Your task to perform on an android device: Go to internet settings Image 0: 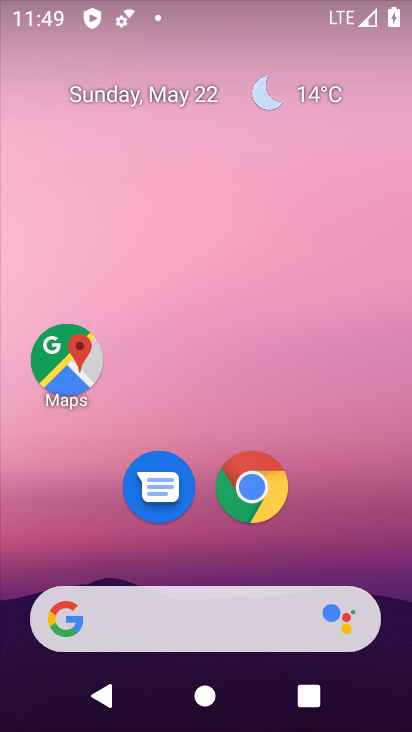
Step 0: drag from (374, 537) to (304, 4)
Your task to perform on an android device: Go to internet settings Image 1: 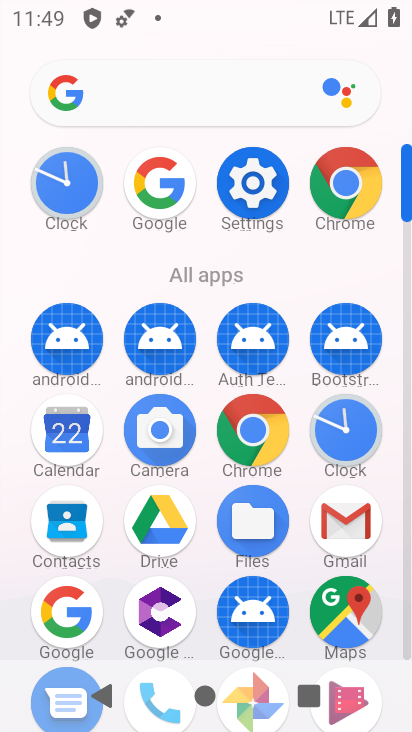
Step 1: click (257, 163)
Your task to perform on an android device: Go to internet settings Image 2: 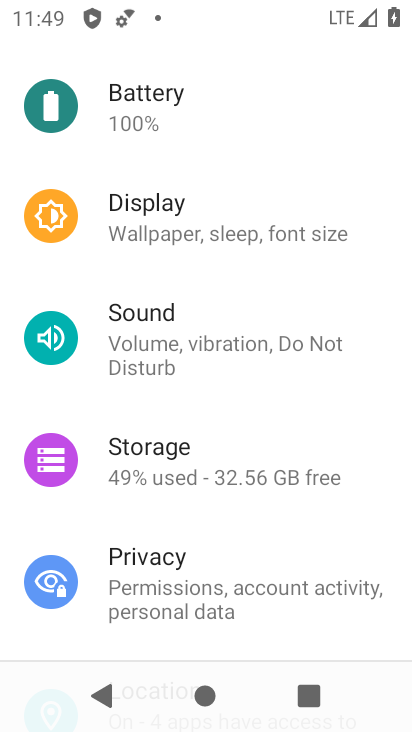
Step 2: drag from (245, 207) to (218, 727)
Your task to perform on an android device: Go to internet settings Image 3: 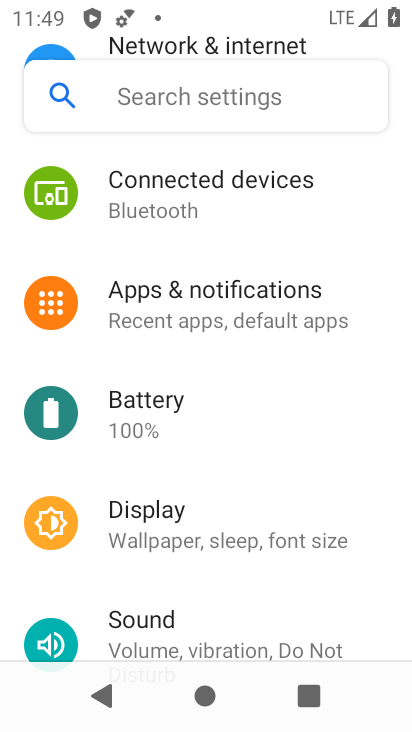
Step 3: drag from (244, 210) to (274, 709)
Your task to perform on an android device: Go to internet settings Image 4: 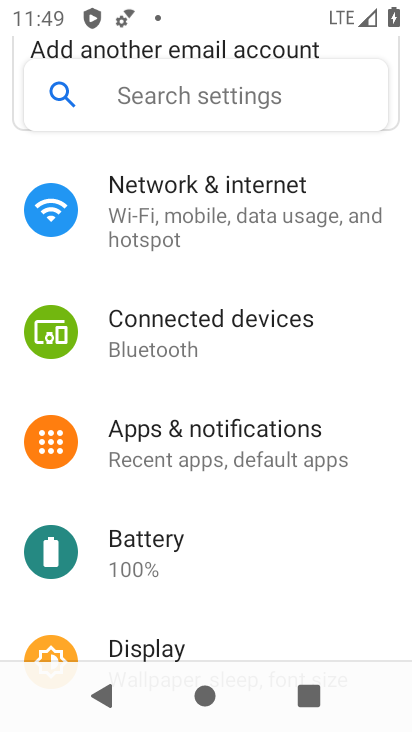
Step 4: click (213, 182)
Your task to perform on an android device: Go to internet settings Image 5: 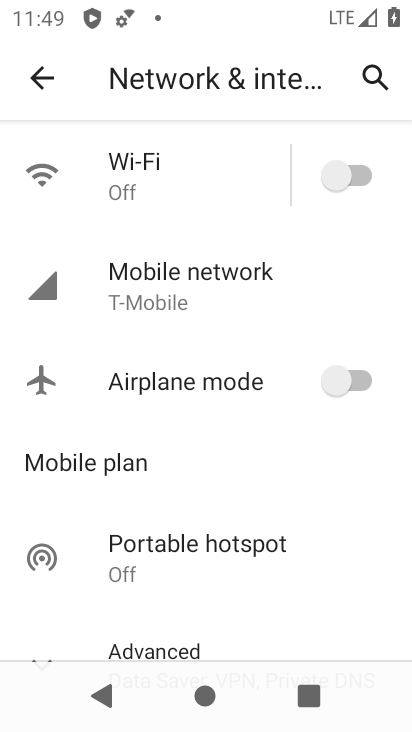
Step 5: task complete